Your task to perform on an android device: open app "Google Play Music" Image 0: 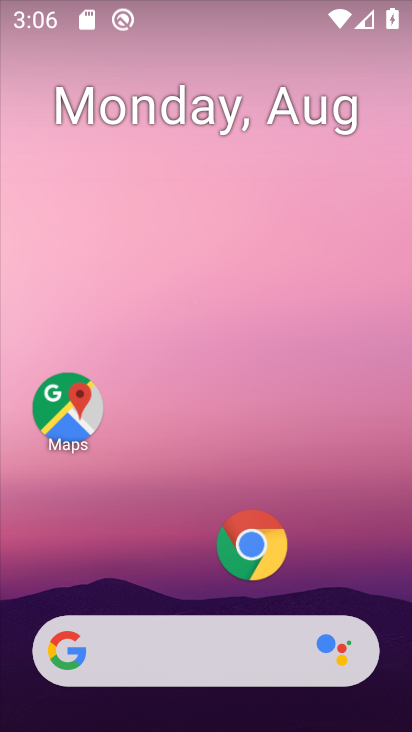
Step 0: drag from (196, 441) to (175, 60)
Your task to perform on an android device: open app "Google Play Music" Image 1: 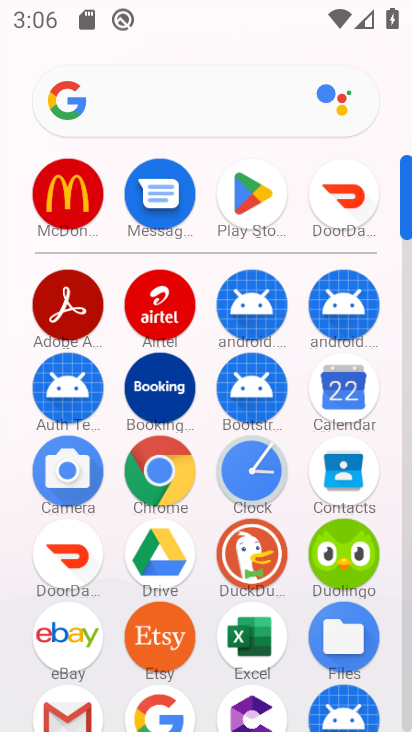
Step 1: click (235, 181)
Your task to perform on an android device: open app "Google Play Music" Image 2: 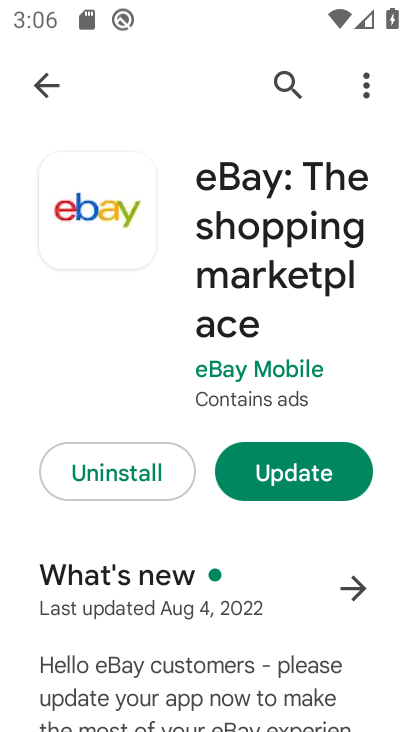
Step 2: click (296, 77)
Your task to perform on an android device: open app "Google Play Music" Image 3: 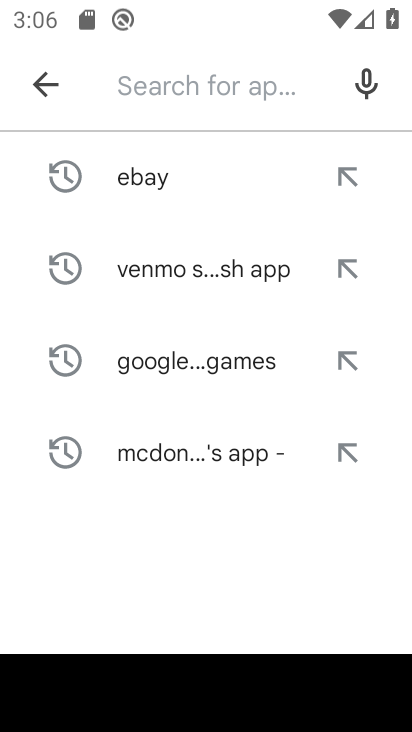
Step 3: click (176, 97)
Your task to perform on an android device: open app "Google Play Music" Image 4: 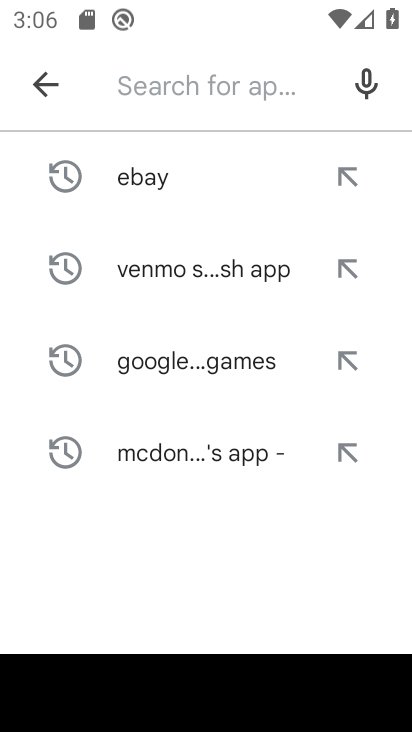
Step 4: type "Google Play Music"
Your task to perform on an android device: open app "Google Play Music" Image 5: 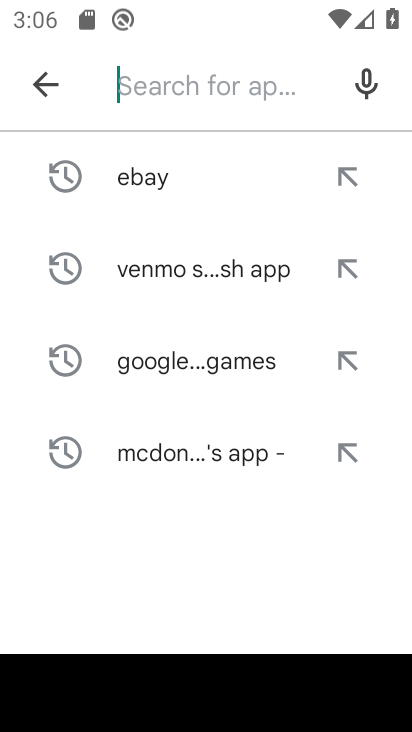
Step 5: click (152, 605)
Your task to perform on an android device: open app "Google Play Music" Image 6: 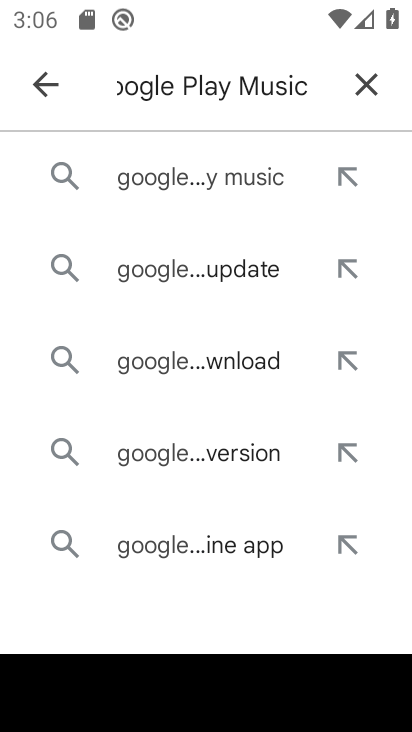
Step 6: click (205, 178)
Your task to perform on an android device: open app "Google Play Music" Image 7: 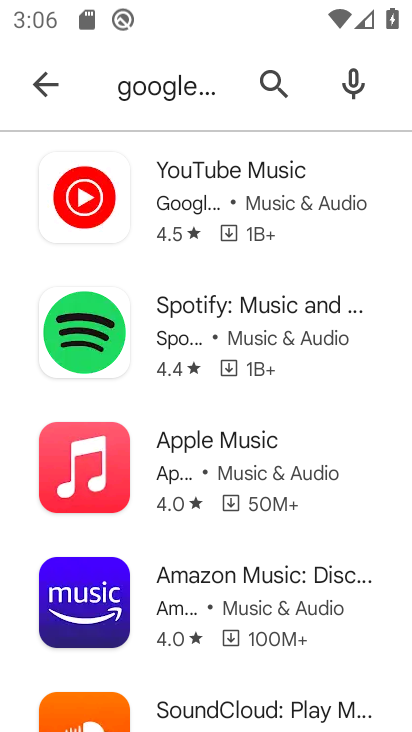
Step 7: task complete